Your task to perform on an android device: check data usage Image 0: 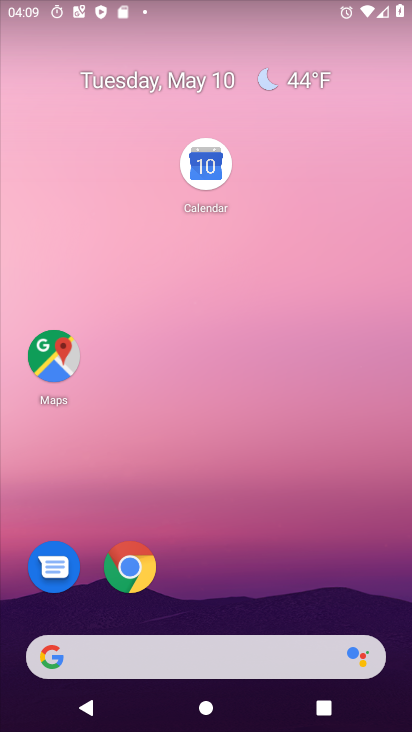
Step 0: drag from (231, 554) to (297, 62)
Your task to perform on an android device: check data usage Image 1: 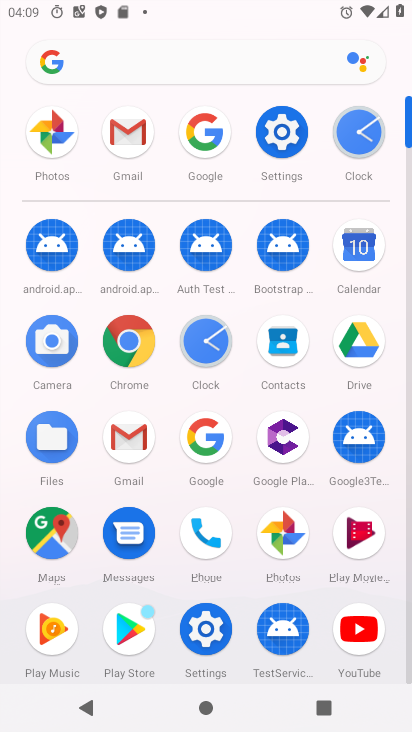
Step 1: click (284, 133)
Your task to perform on an android device: check data usage Image 2: 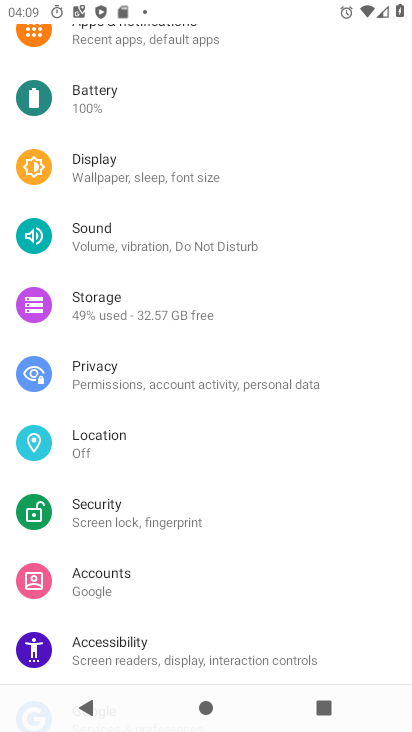
Step 2: drag from (162, 118) to (222, 596)
Your task to perform on an android device: check data usage Image 3: 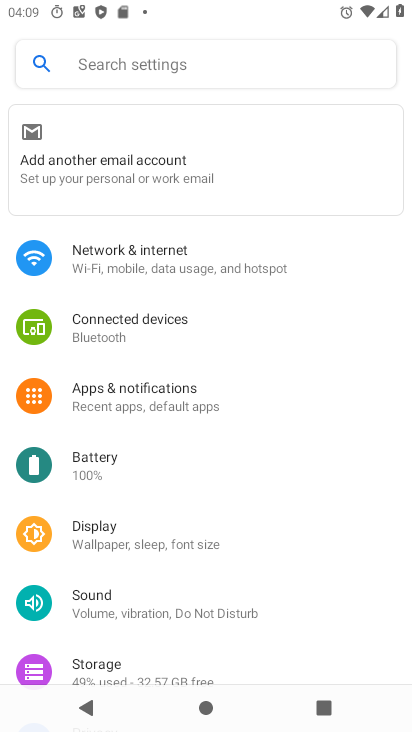
Step 3: click (124, 255)
Your task to perform on an android device: check data usage Image 4: 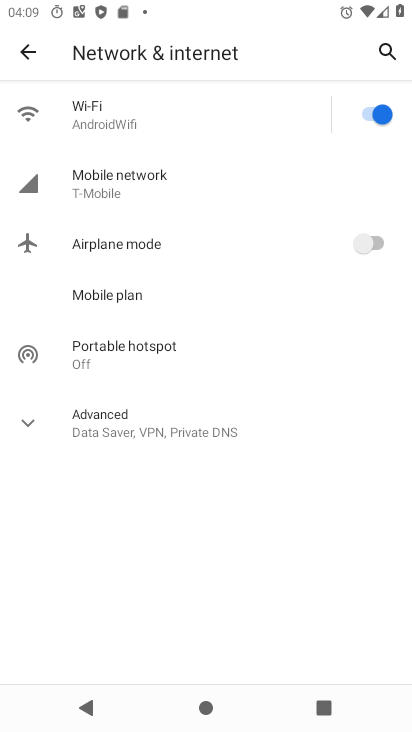
Step 4: click (120, 192)
Your task to perform on an android device: check data usage Image 5: 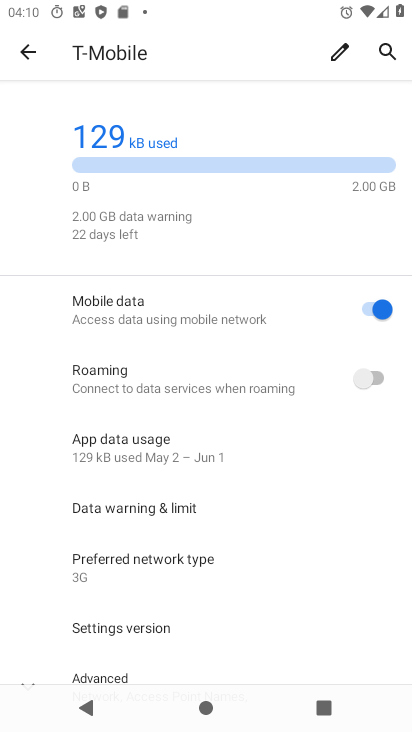
Step 5: task complete